Your task to perform on an android device: Search for seafood restaurants on Google Maps Image 0: 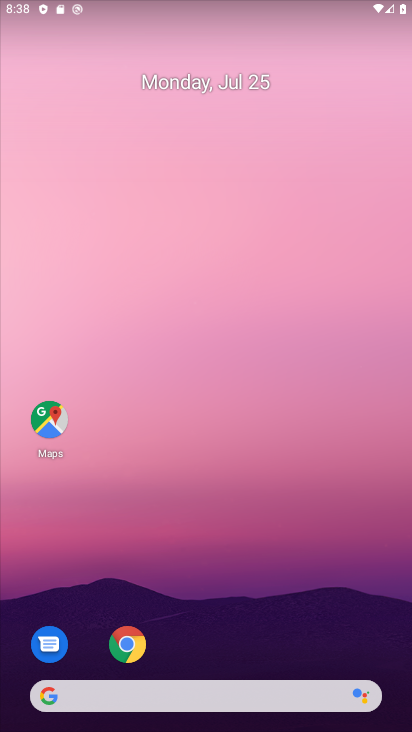
Step 0: drag from (228, 630) to (271, 43)
Your task to perform on an android device: Search for seafood restaurants on Google Maps Image 1: 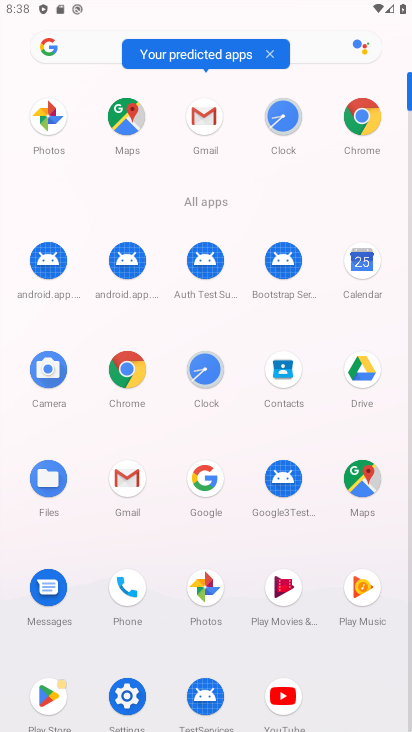
Step 1: click (136, 115)
Your task to perform on an android device: Search for seafood restaurants on Google Maps Image 2: 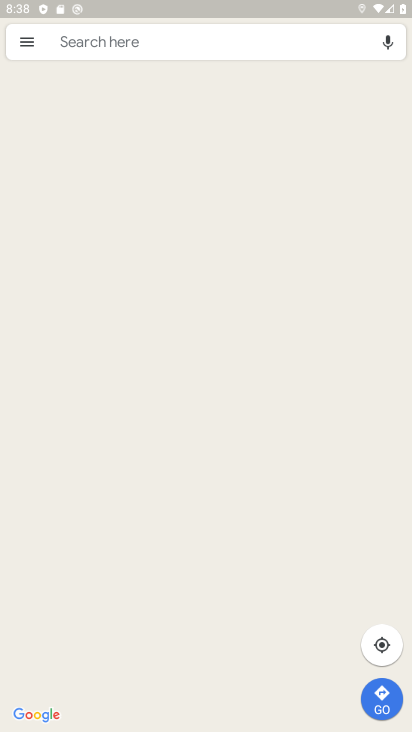
Step 2: click (106, 37)
Your task to perform on an android device: Search for seafood restaurants on Google Maps Image 3: 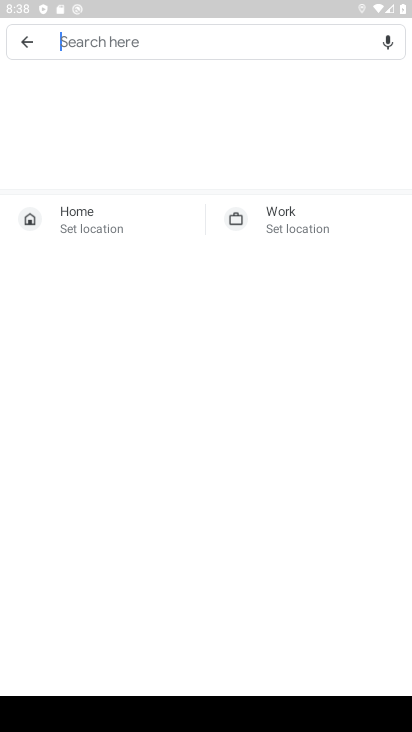
Step 3: click (95, 49)
Your task to perform on an android device: Search for seafood restaurants on Google Maps Image 4: 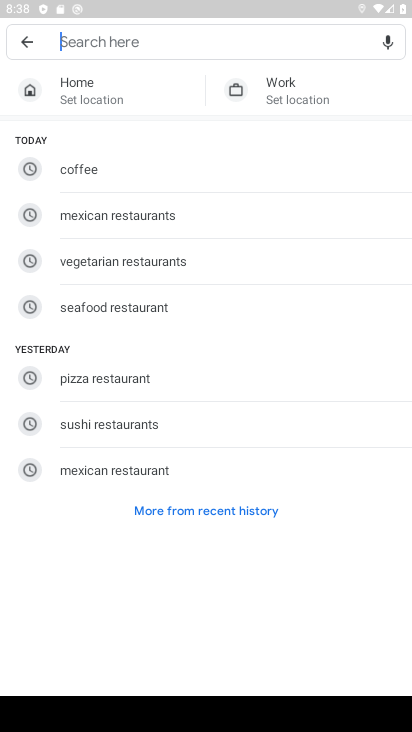
Step 4: type "seafood restaurants"
Your task to perform on an android device: Search for seafood restaurants on Google Maps Image 5: 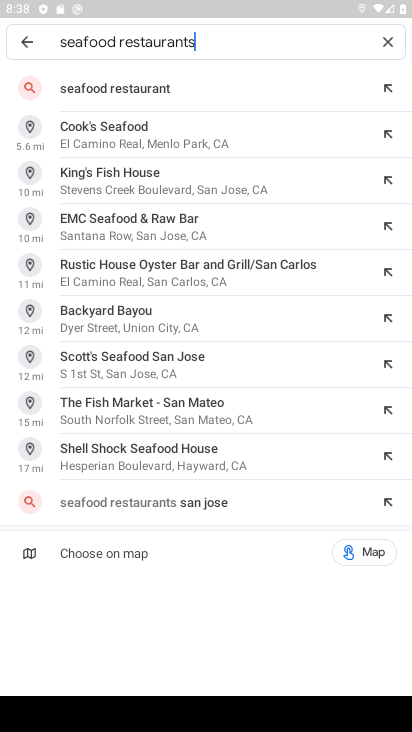
Step 5: click (91, 92)
Your task to perform on an android device: Search for seafood restaurants on Google Maps Image 6: 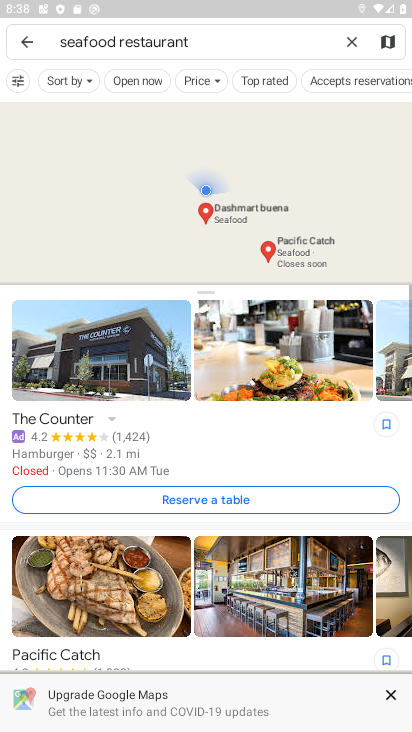
Step 6: task complete